Your task to perform on an android device: turn pop-ups off in chrome Image 0: 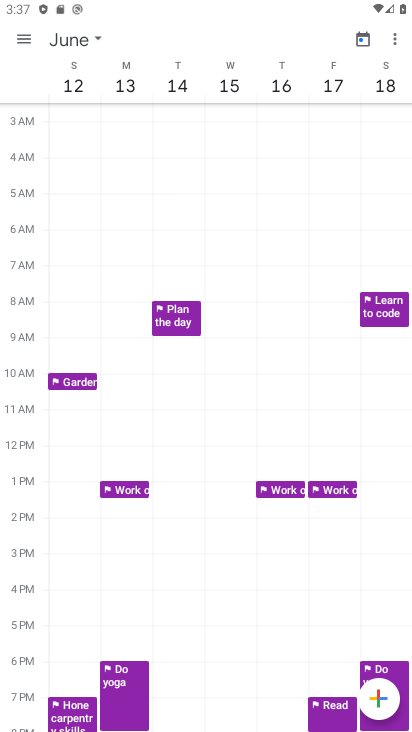
Step 0: press home button
Your task to perform on an android device: turn pop-ups off in chrome Image 1: 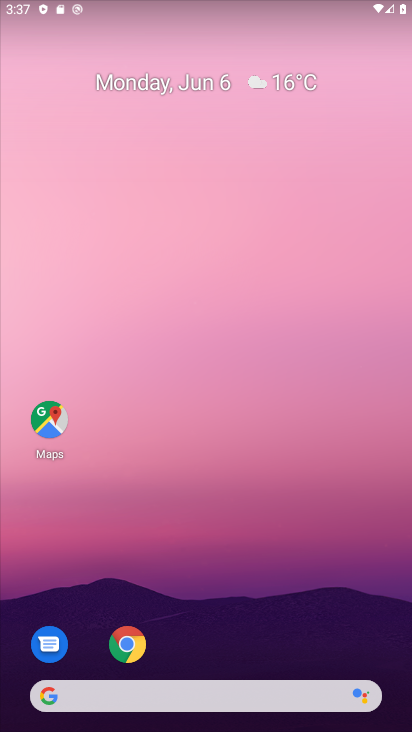
Step 1: click (140, 647)
Your task to perform on an android device: turn pop-ups off in chrome Image 2: 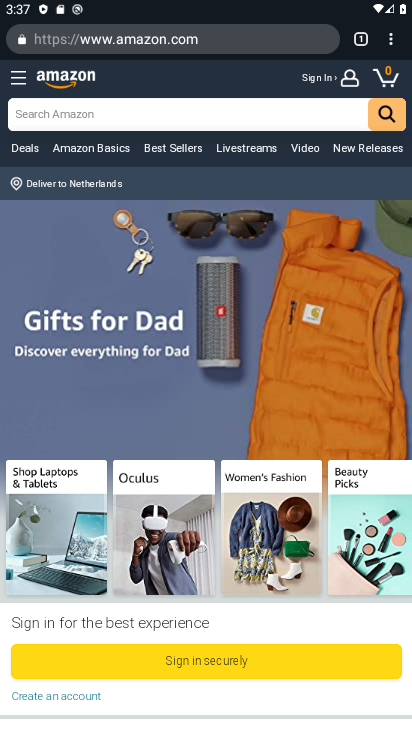
Step 2: click (390, 47)
Your task to perform on an android device: turn pop-ups off in chrome Image 3: 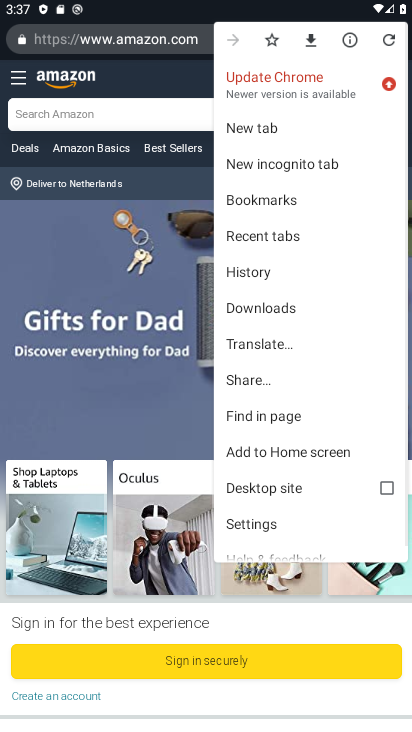
Step 3: click (241, 521)
Your task to perform on an android device: turn pop-ups off in chrome Image 4: 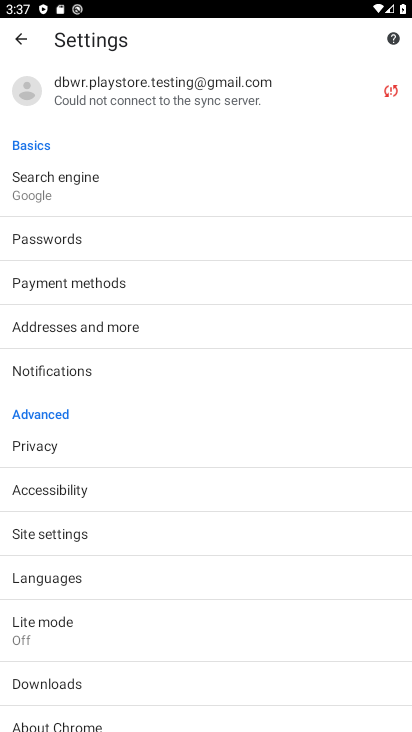
Step 4: click (56, 541)
Your task to perform on an android device: turn pop-ups off in chrome Image 5: 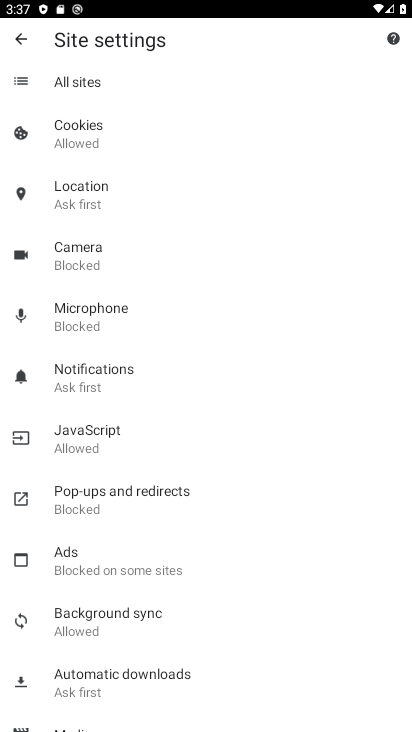
Step 5: click (120, 513)
Your task to perform on an android device: turn pop-ups off in chrome Image 6: 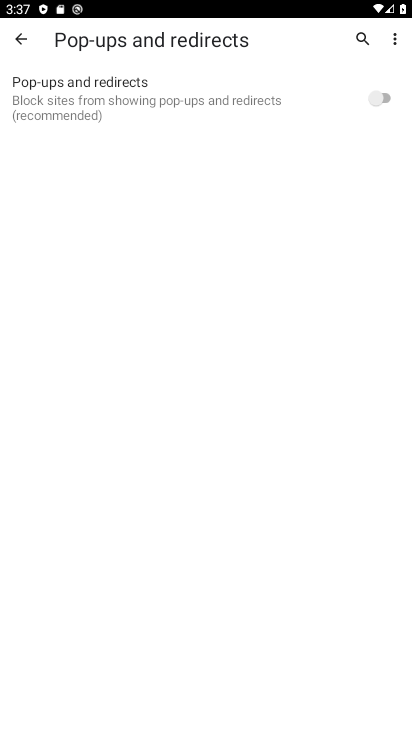
Step 6: task complete